Your task to perform on an android device: Open battery settings Image 0: 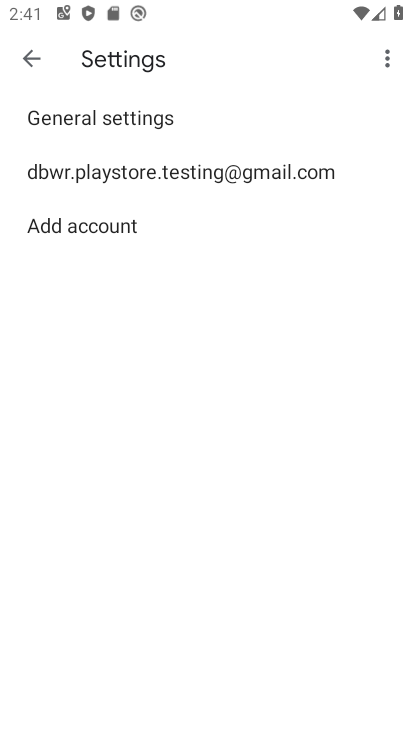
Step 0: press back button
Your task to perform on an android device: Open battery settings Image 1: 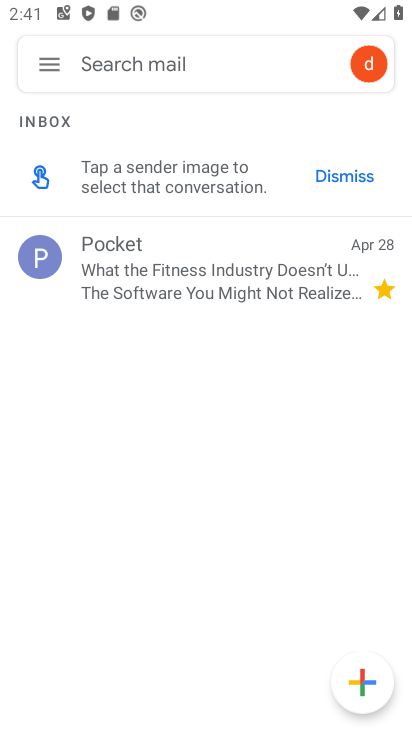
Step 1: press back button
Your task to perform on an android device: Open battery settings Image 2: 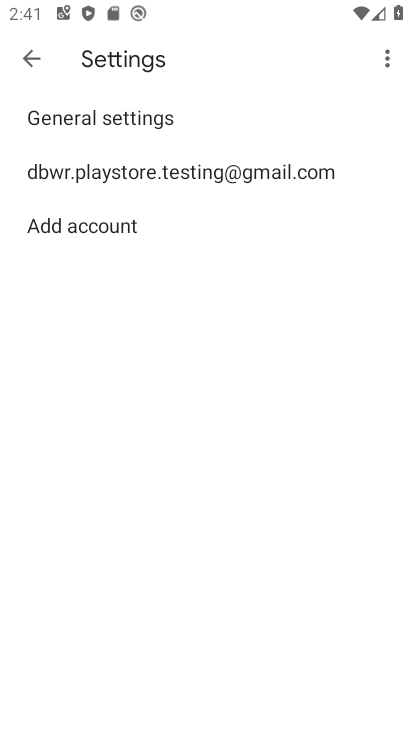
Step 2: press home button
Your task to perform on an android device: Open battery settings Image 3: 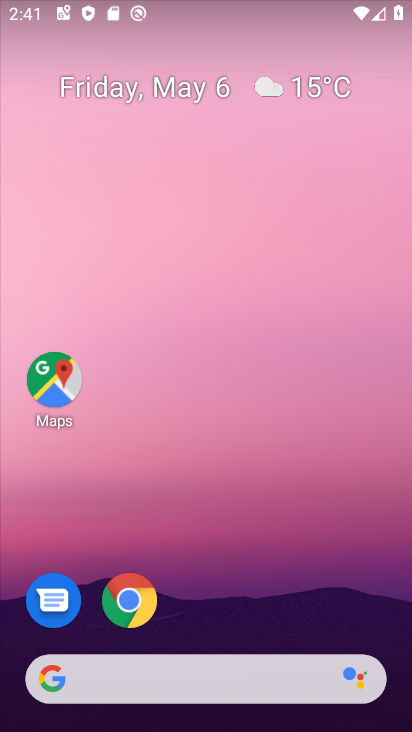
Step 3: drag from (243, 581) to (242, 57)
Your task to perform on an android device: Open battery settings Image 4: 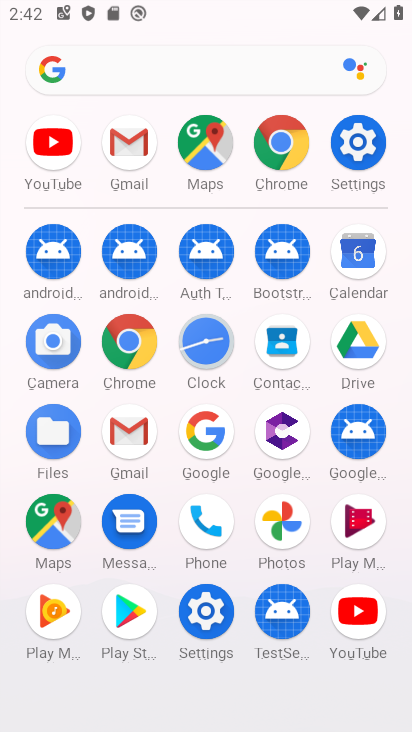
Step 4: drag from (2, 611) to (10, 414)
Your task to perform on an android device: Open battery settings Image 5: 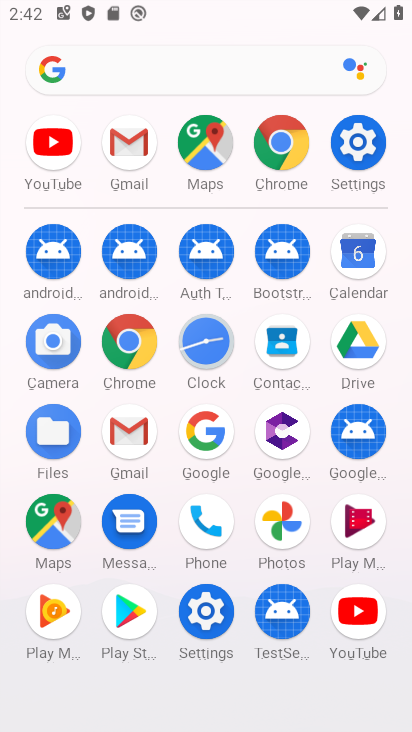
Step 5: click (203, 605)
Your task to perform on an android device: Open battery settings Image 6: 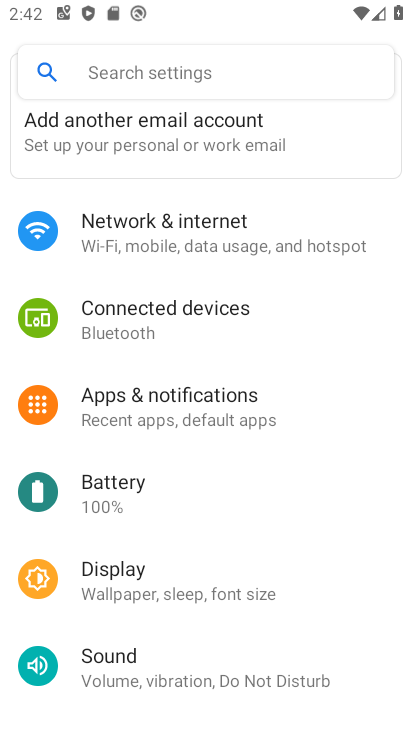
Step 6: click (161, 478)
Your task to perform on an android device: Open battery settings Image 7: 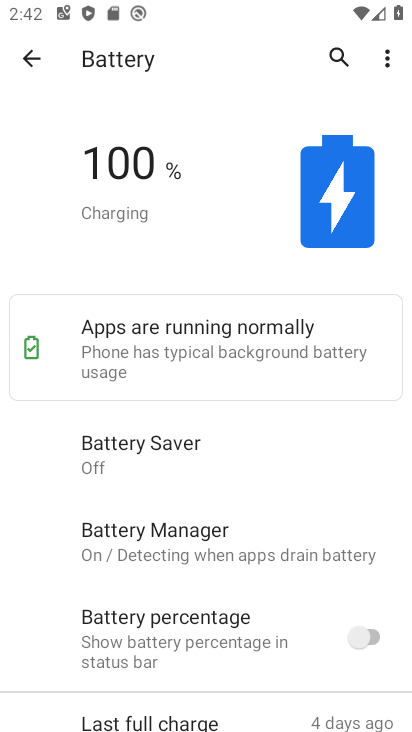
Step 7: task complete